Your task to perform on an android device: turn off location Image 0: 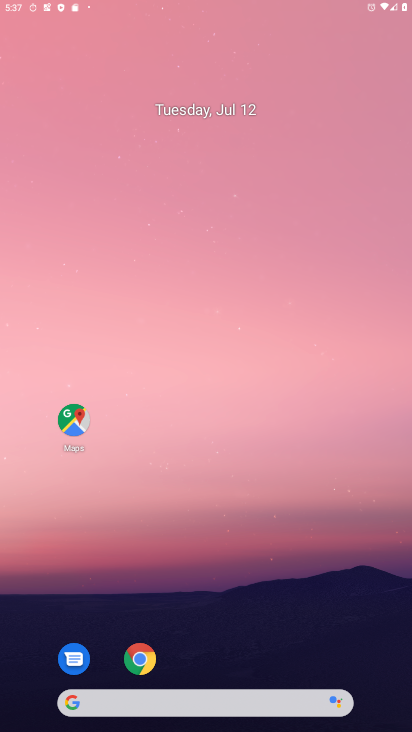
Step 0: press home button
Your task to perform on an android device: turn off location Image 1: 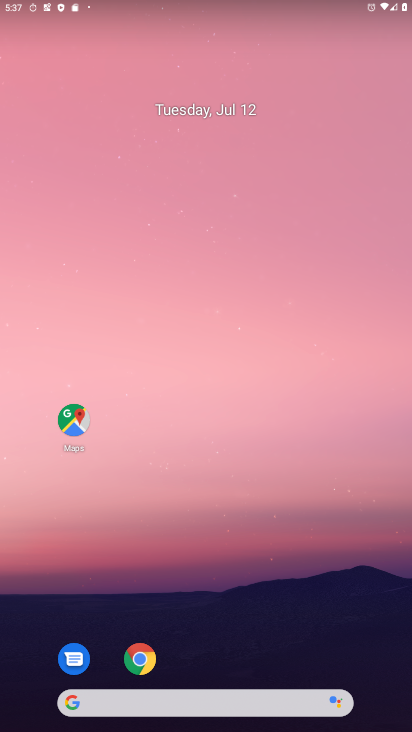
Step 1: drag from (247, 374) to (409, 47)
Your task to perform on an android device: turn off location Image 2: 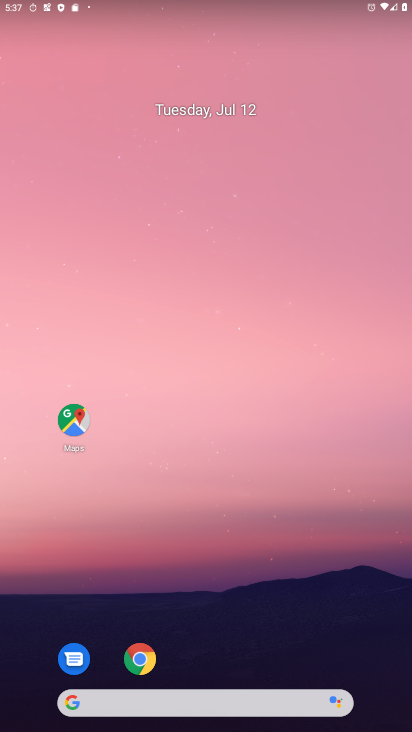
Step 2: click (187, 656)
Your task to perform on an android device: turn off location Image 3: 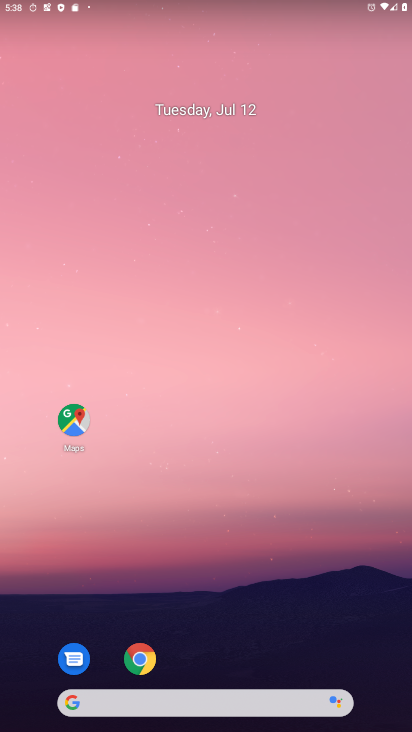
Step 3: drag from (191, 654) to (180, 127)
Your task to perform on an android device: turn off location Image 4: 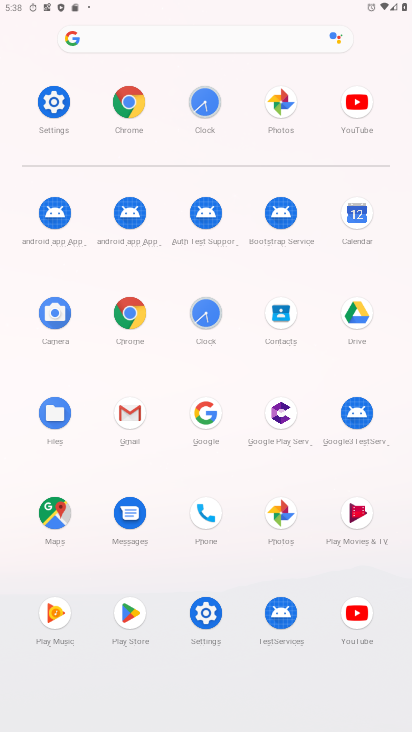
Step 4: click (45, 111)
Your task to perform on an android device: turn off location Image 5: 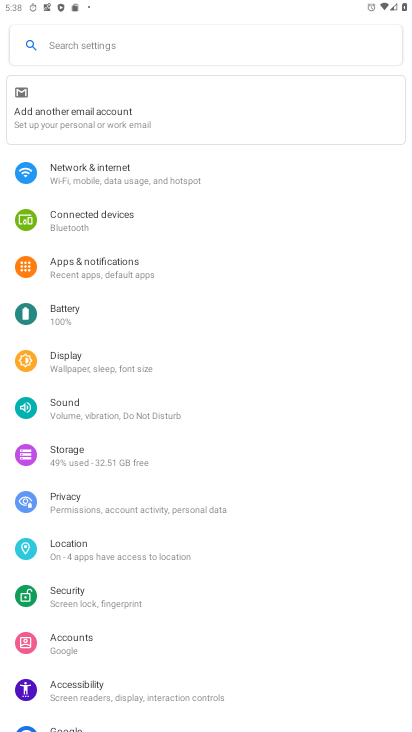
Step 5: click (72, 541)
Your task to perform on an android device: turn off location Image 6: 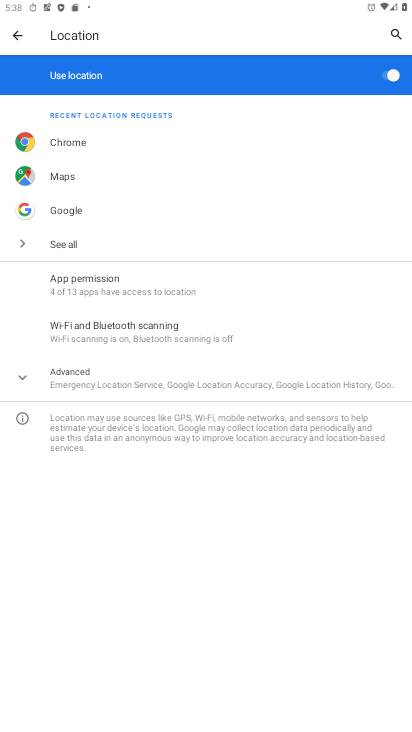
Step 6: click (93, 378)
Your task to perform on an android device: turn off location Image 7: 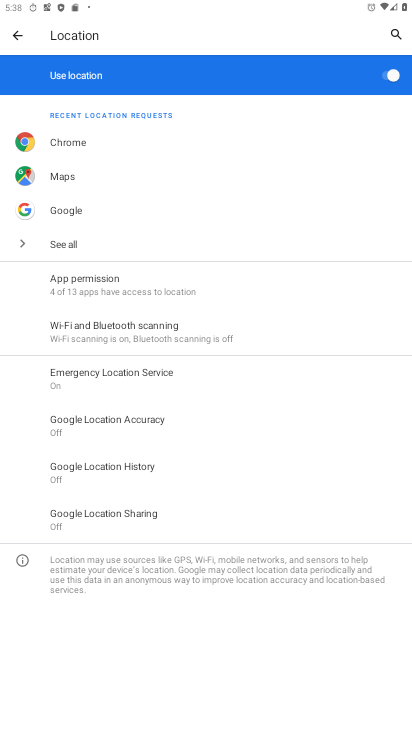
Step 7: click (387, 75)
Your task to perform on an android device: turn off location Image 8: 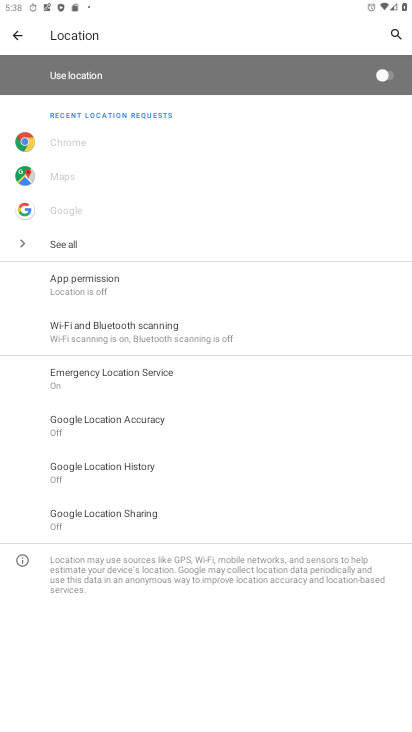
Step 8: task complete